Your task to perform on an android device: change the clock display to analog Image 0: 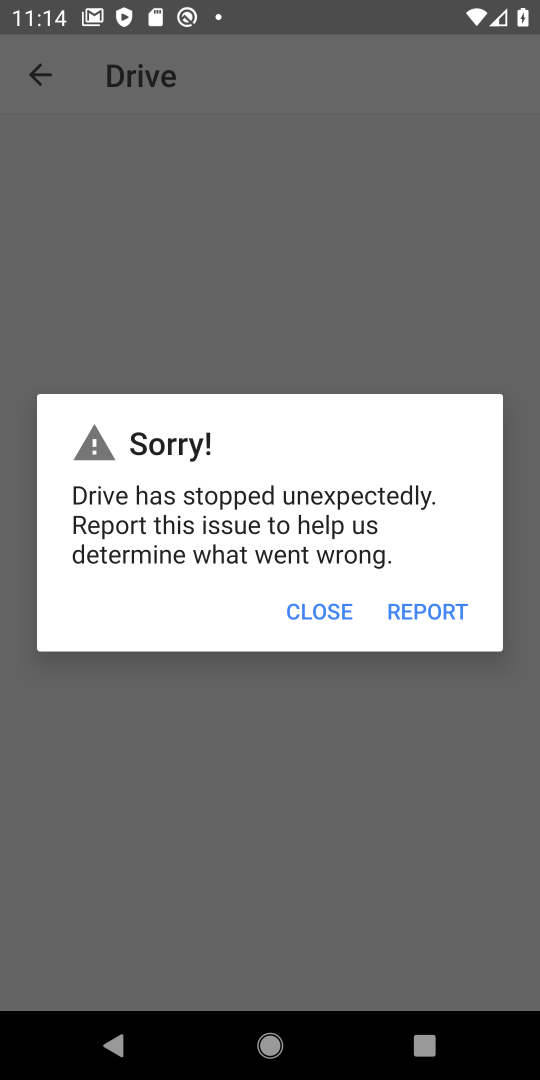
Step 0: click (260, 1038)
Your task to perform on an android device: change the clock display to analog Image 1: 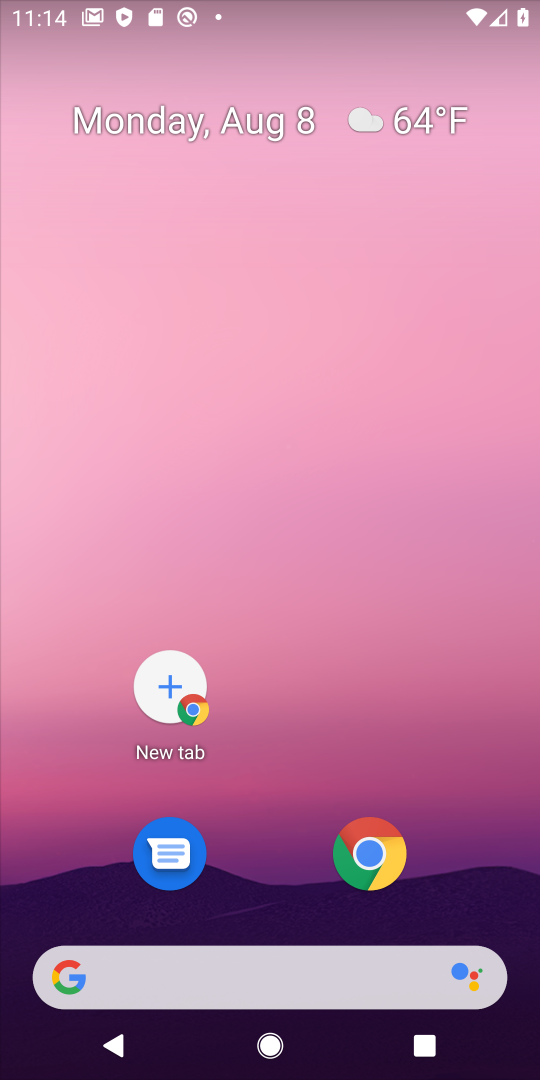
Step 1: drag from (266, 811) to (315, 41)
Your task to perform on an android device: change the clock display to analog Image 2: 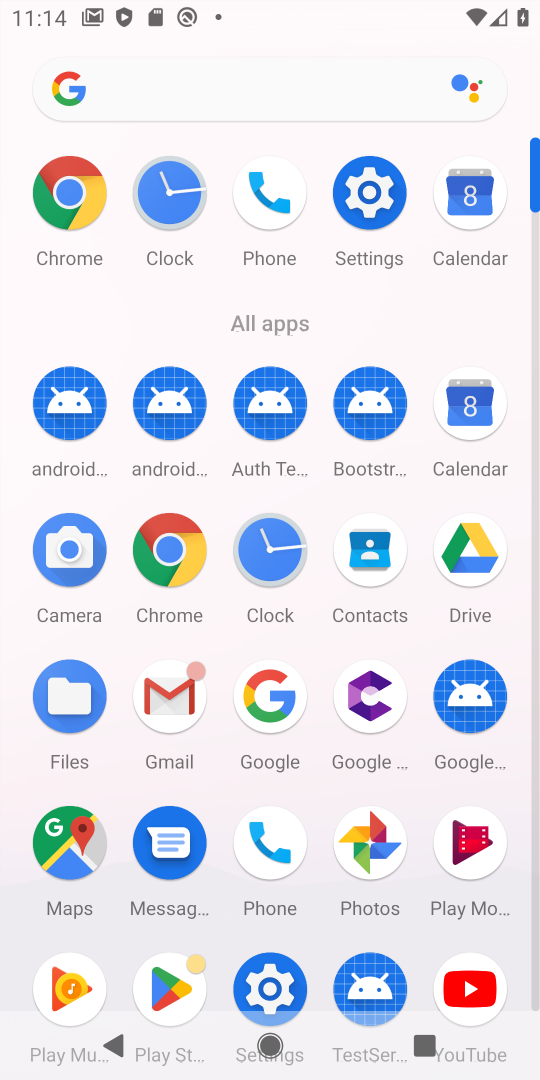
Step 2: click (270, 559)
Your task to perform on an android device: change the clock display to analog Image 3: 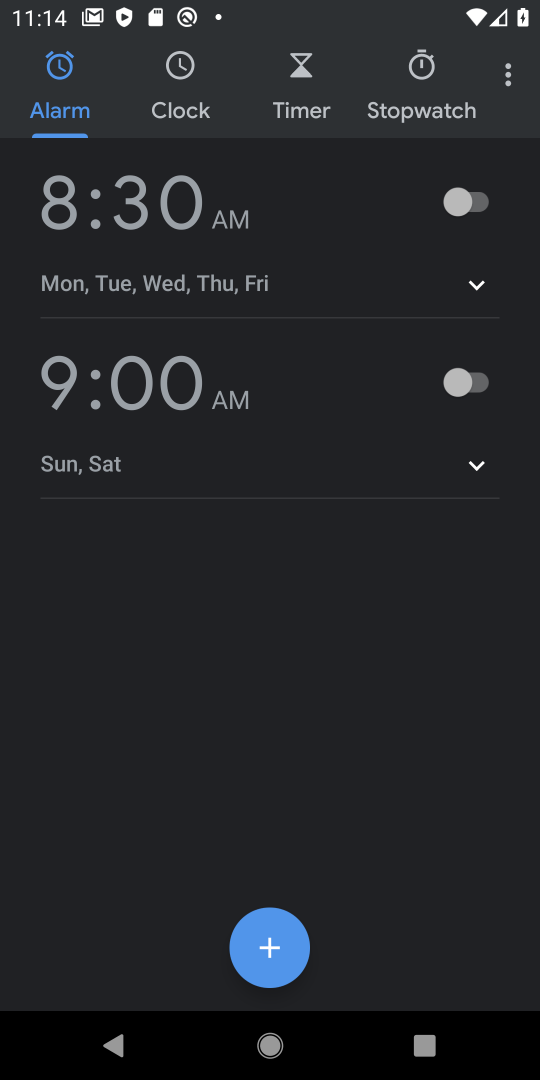
Step 3: click (510, 80)
Your task to perform on an android device: change the clock display to analog Image 4: 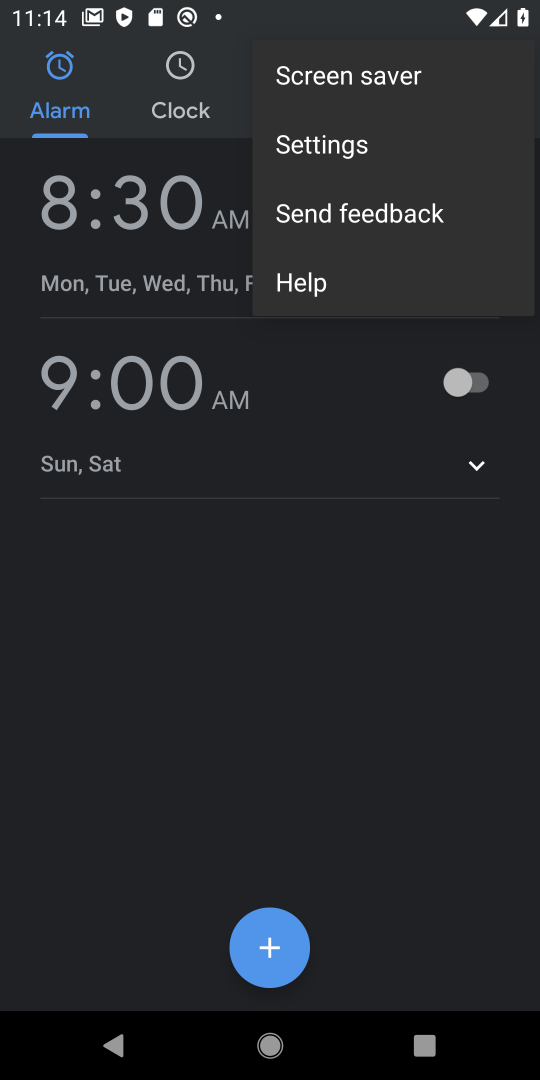
Step 4: click (364, 154)
Your task to perform on an android device: change the clock display to analog Image 5: 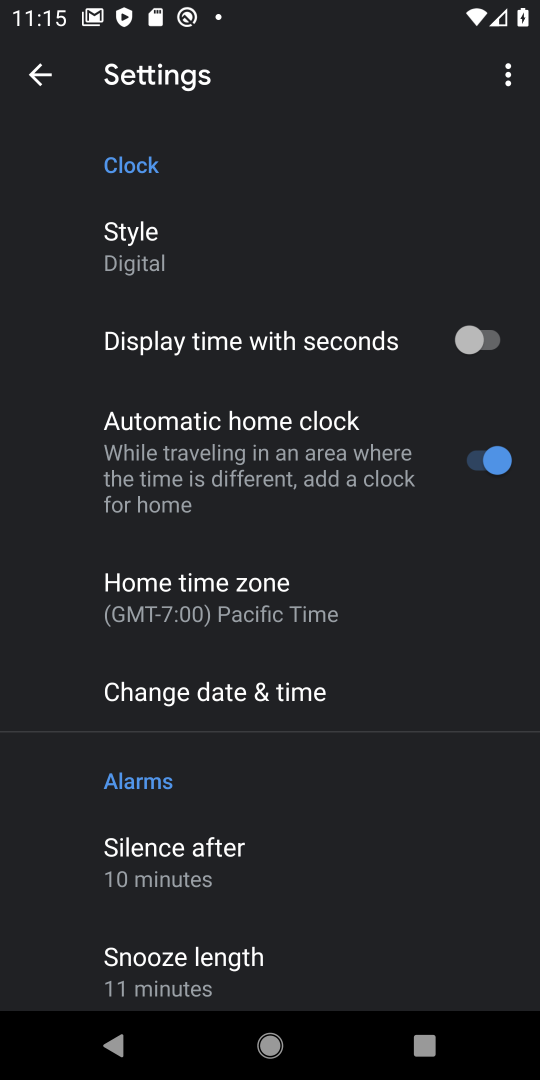
Step 5: click (235, 260)
Your task to perform on an android device: change the clock display to analog Image 6: 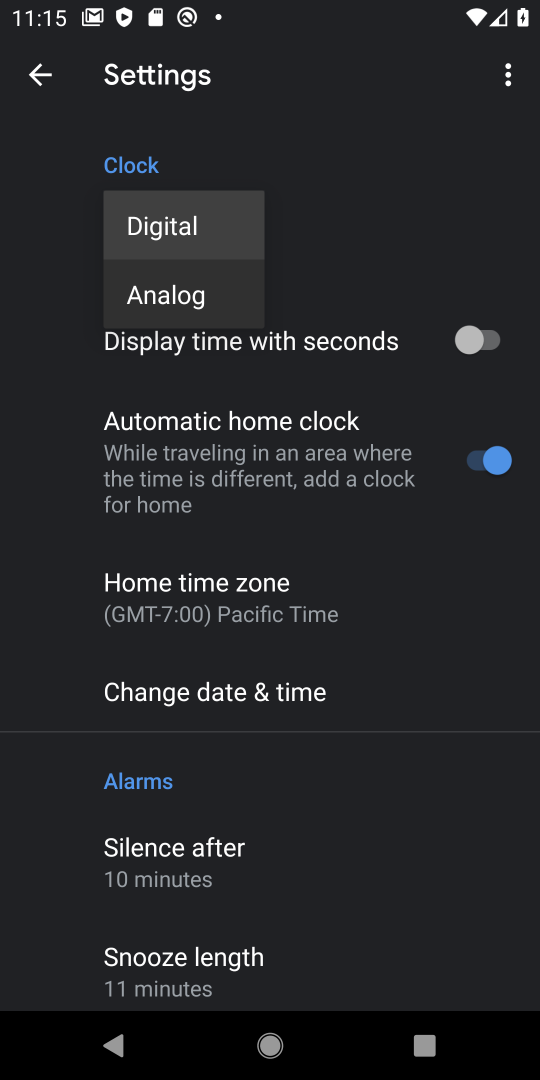
Step 6: click (218, 290)
Your task to perform on an android device: change the clock display to analog Image 7: 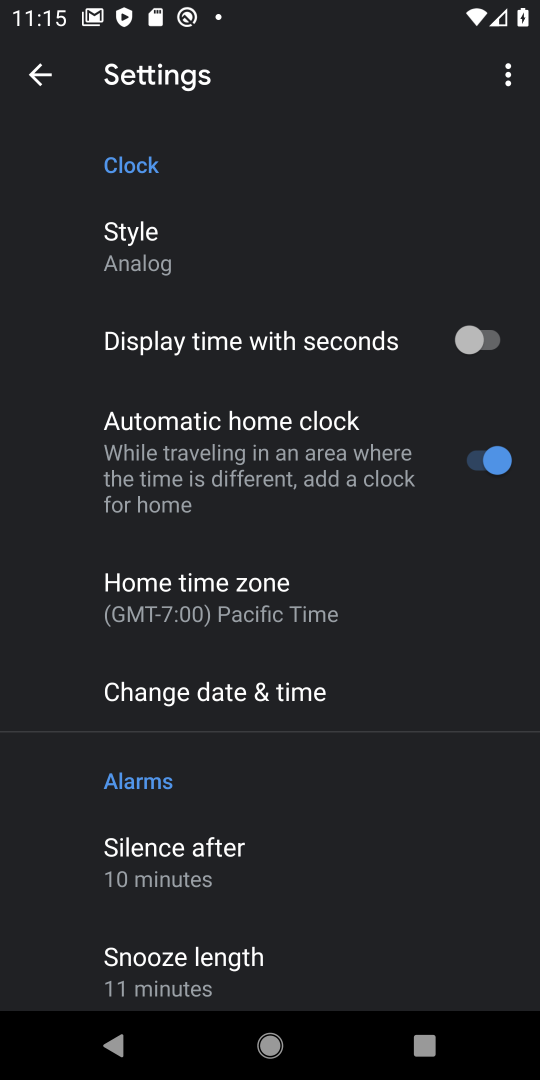
Step 7: task complete